Your task to perform on an android device: Open Google Chrome and open the bookmarks view Image 0: 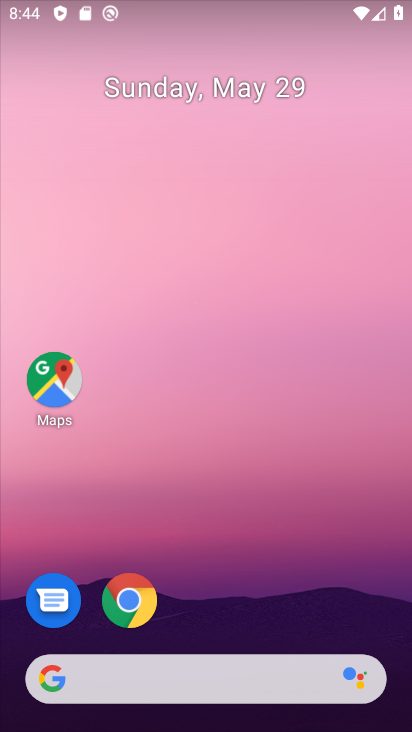
Step 0: click (133, 600)
Your task to perform on an android device: Open Google Chrome and open the bookmarks view Image 1: 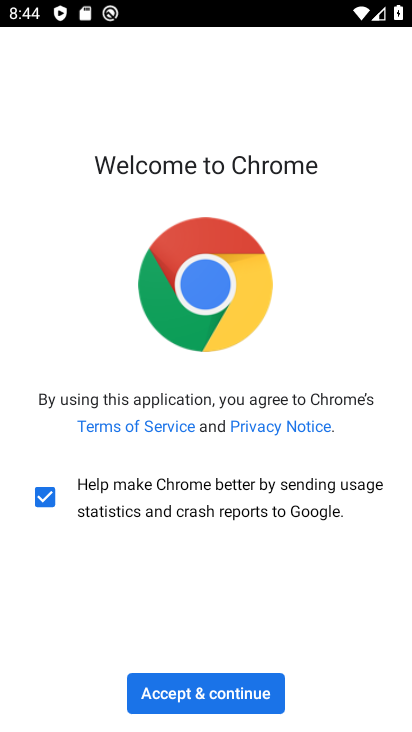
Step 1: click (237, 696)
Your task to perform on an android device: Open Google Chrome and open the bookmarks view Image 2: 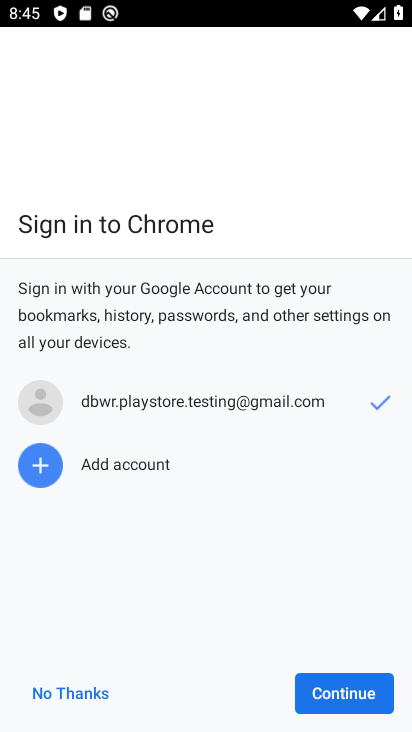
Step 2: click (310, 693)
Your task to perform on an android device: Open Google Chrome and open the bookmarks view Image 3: 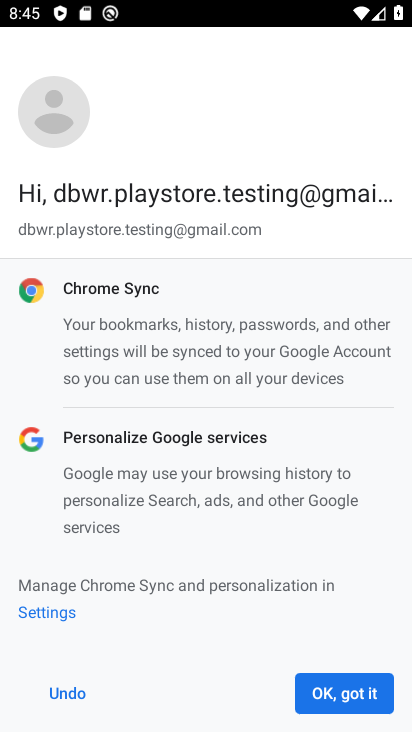
Step 3: click (327, 699)
Your task to perform on an android device: Open Google Chrome and open the bookmarks view Image 4: 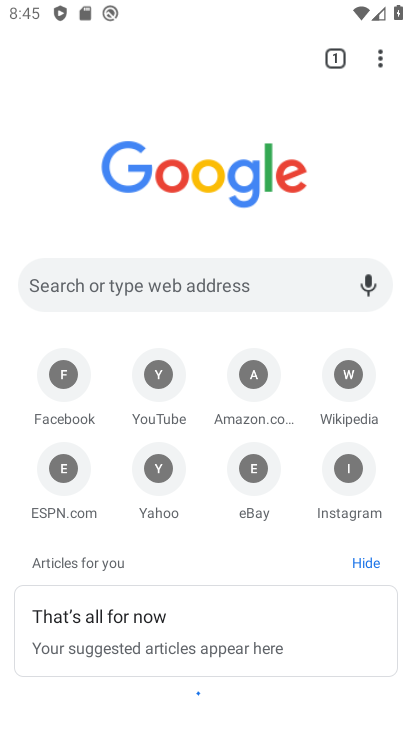
Step 4: click (381, 72)
Your task to perform on an android device: Open Google Chrome and open the bookmarks view Image 5: 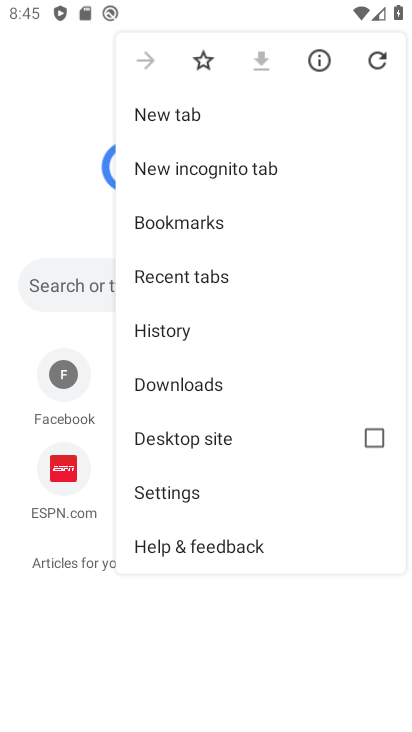
Step 5: click (175, 226)
Your task to perform on an android device: Open Google Chrome and open the bookmarks view Image 6: 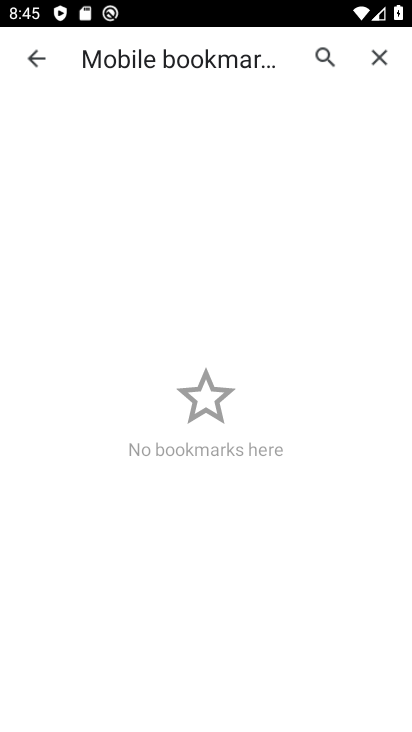
Step 6: task complete